Your task to perform on an android device: Open Reddit.com Image 0: 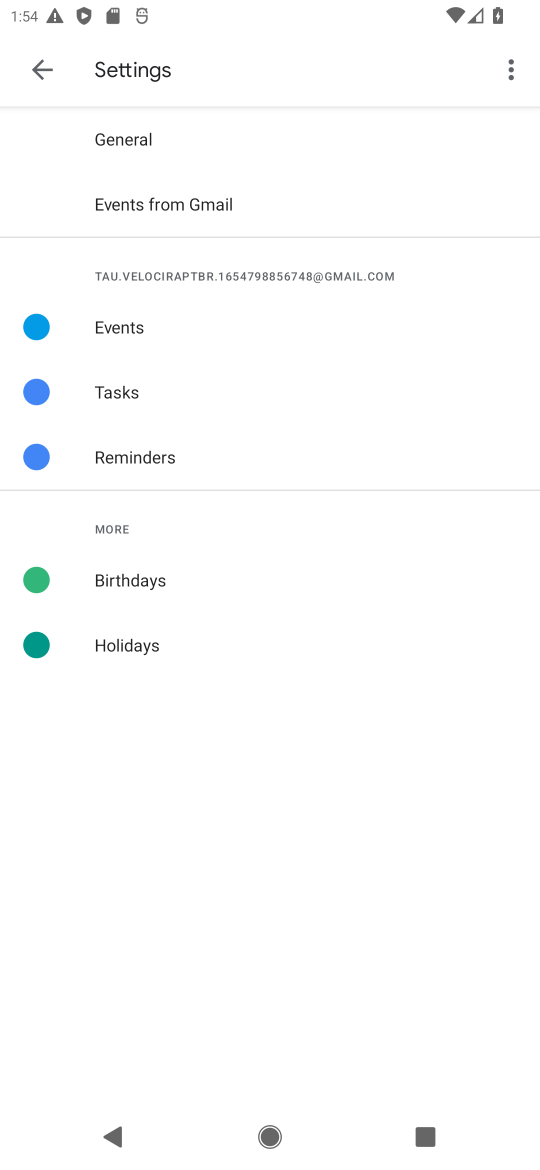
Step 0: task complete